Your task to perform on an android device: turn vacation reply on in the gmail app Image 0: 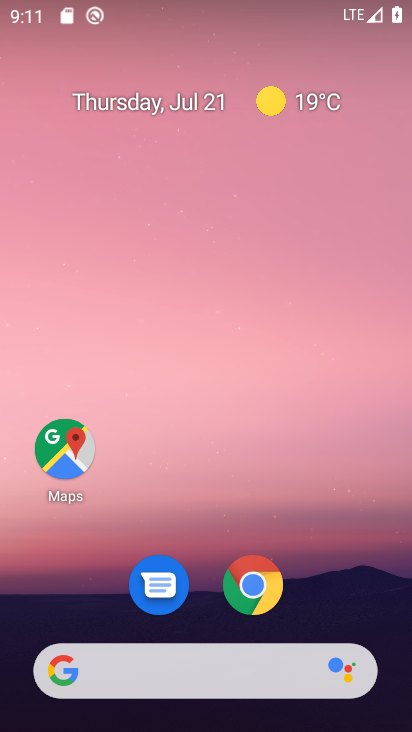
Step 0: drag from (333, 559) to (384, 57)
Your task to perform on an android device: turn vacation reply on in the gmail app Image 1: 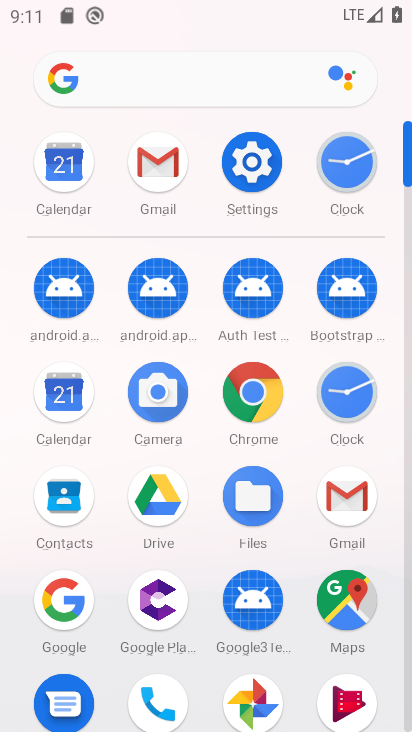
Step 1: click (153, 165)
Your task to perform on an android device: turn vacation reply on in the gmail app Image 2: 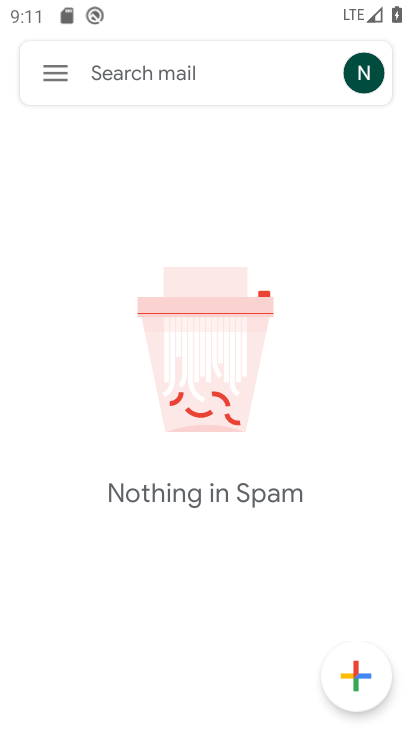
Step 2: click (55, 73)
Your task to perform on an android device: turn vacation reply on in the gmail app Image 3: 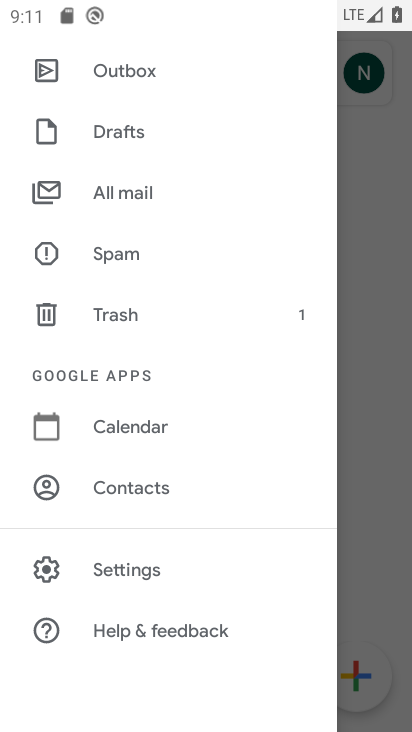
Step 3: click (138, 573)
Your task to perform on an android device: turn vacation reply on in the gmail app Image 4: 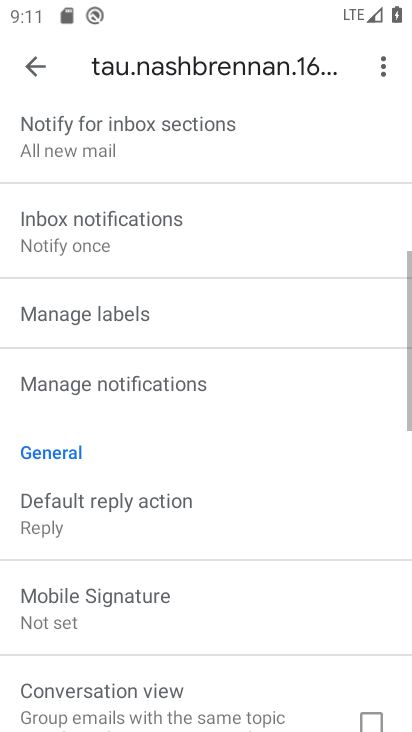
Step 4: drag from (228, 620) to (330, 96)
Your task to perform on an android device: turn vacation reply on in the gmail app Image 5: 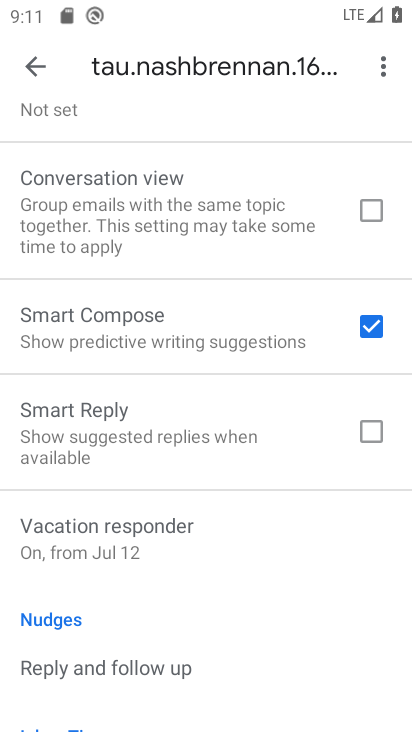
Step 5: click (201, 532)
Your task to perform on an android device: turn vacation reply on in the gmail app Image 6: 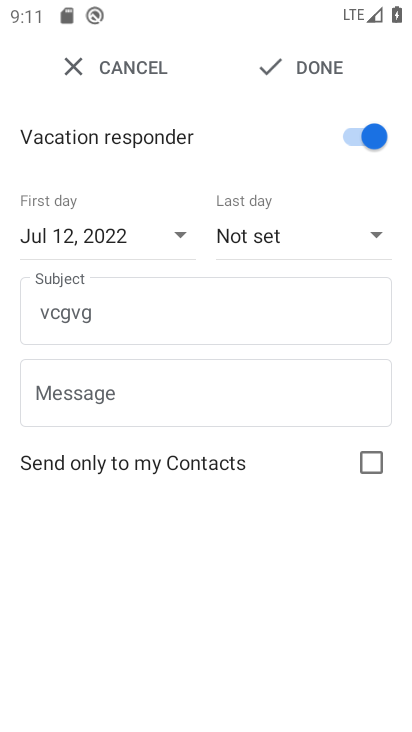
Step 6: task complete